Your task to perform on an android device: Open privacy settings Image 0: 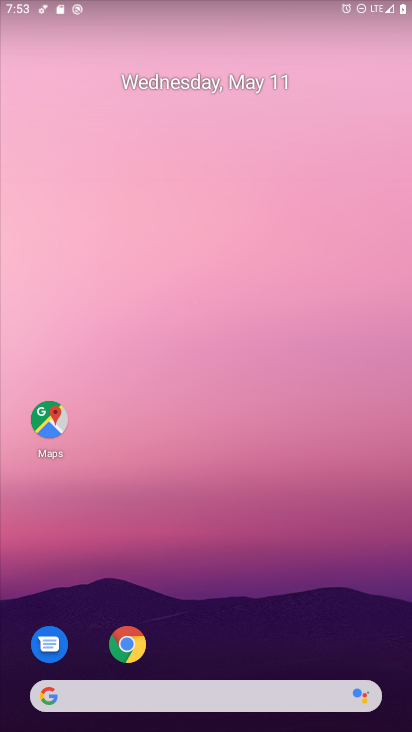
Step 0: drag from (210, 617) to (100, 203)
Your task to perform on an android device: Open privacy settings Image 1: 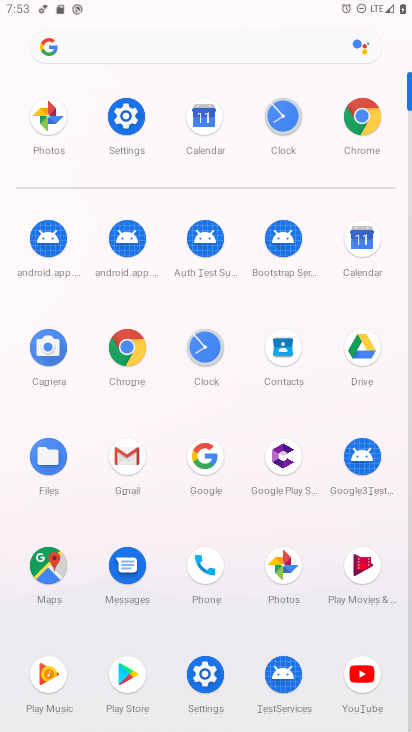
Step 1: click (127, 115)
Your task to perform on an android device: Open privacy settings Image 2: 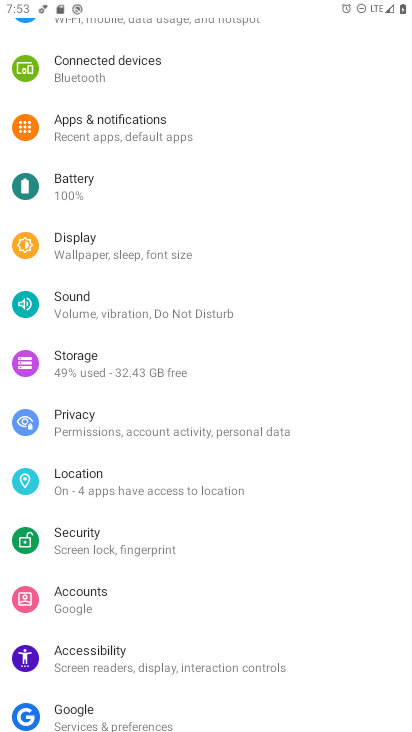
Step 2: click (65, 412)
Your task to perform on an android device: Open privacy settings Image 3: 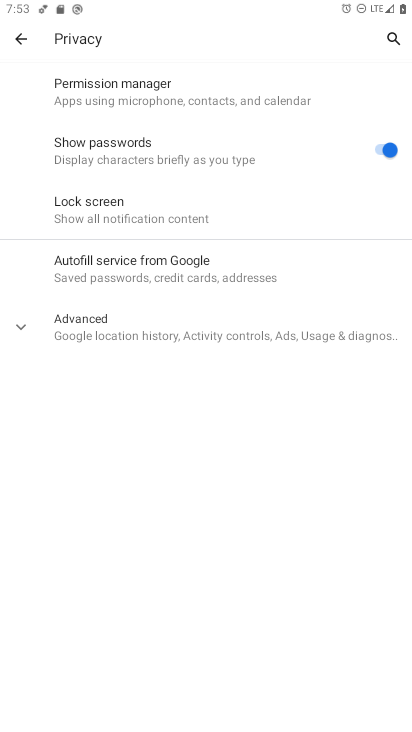
Step 3: task complete